Your task to perform on an android device: Search for "lg ultragear" on costco, select the first entry, and add it to the cart. Image 0: 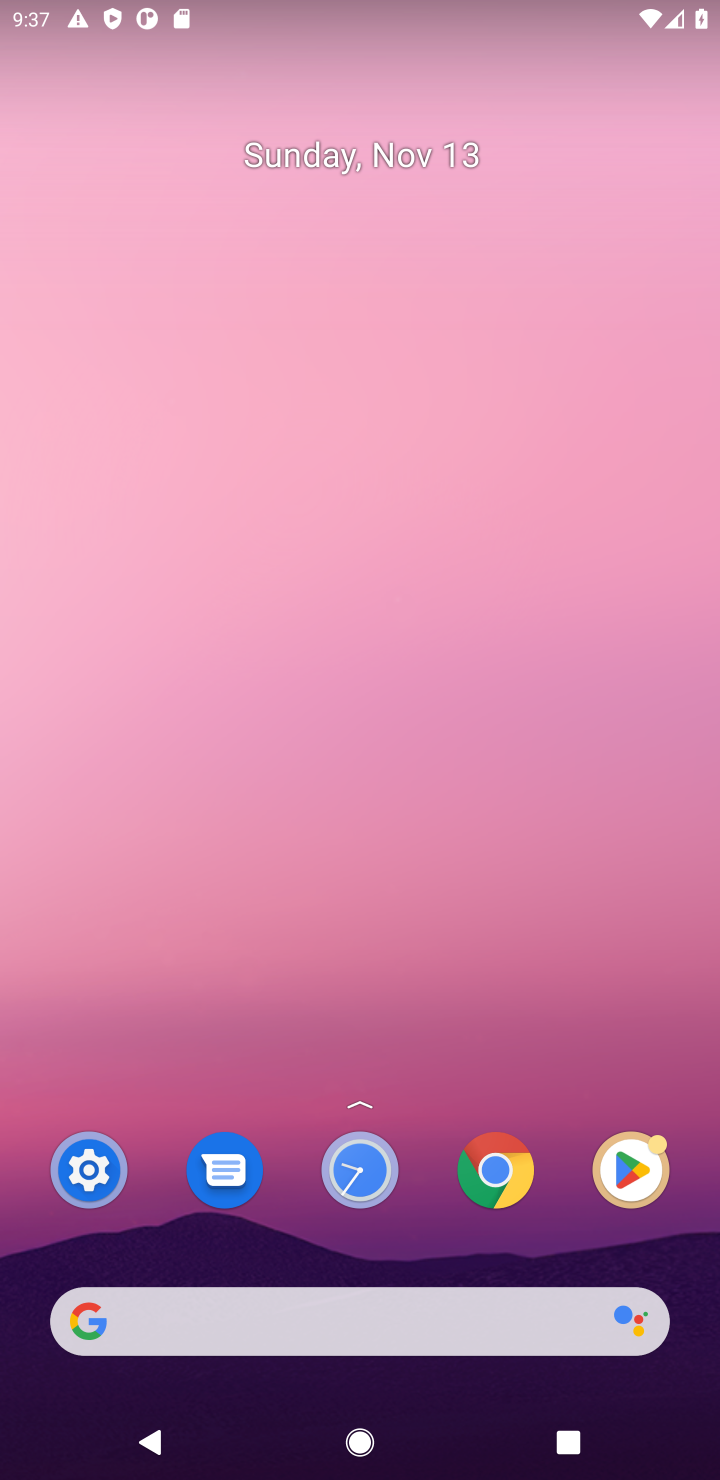
Step 0: click (360, 1313)
Your task to perform on an android device: Search for "lg ultragear" on costco, select the first entry, and add it to the cart. Image 1: 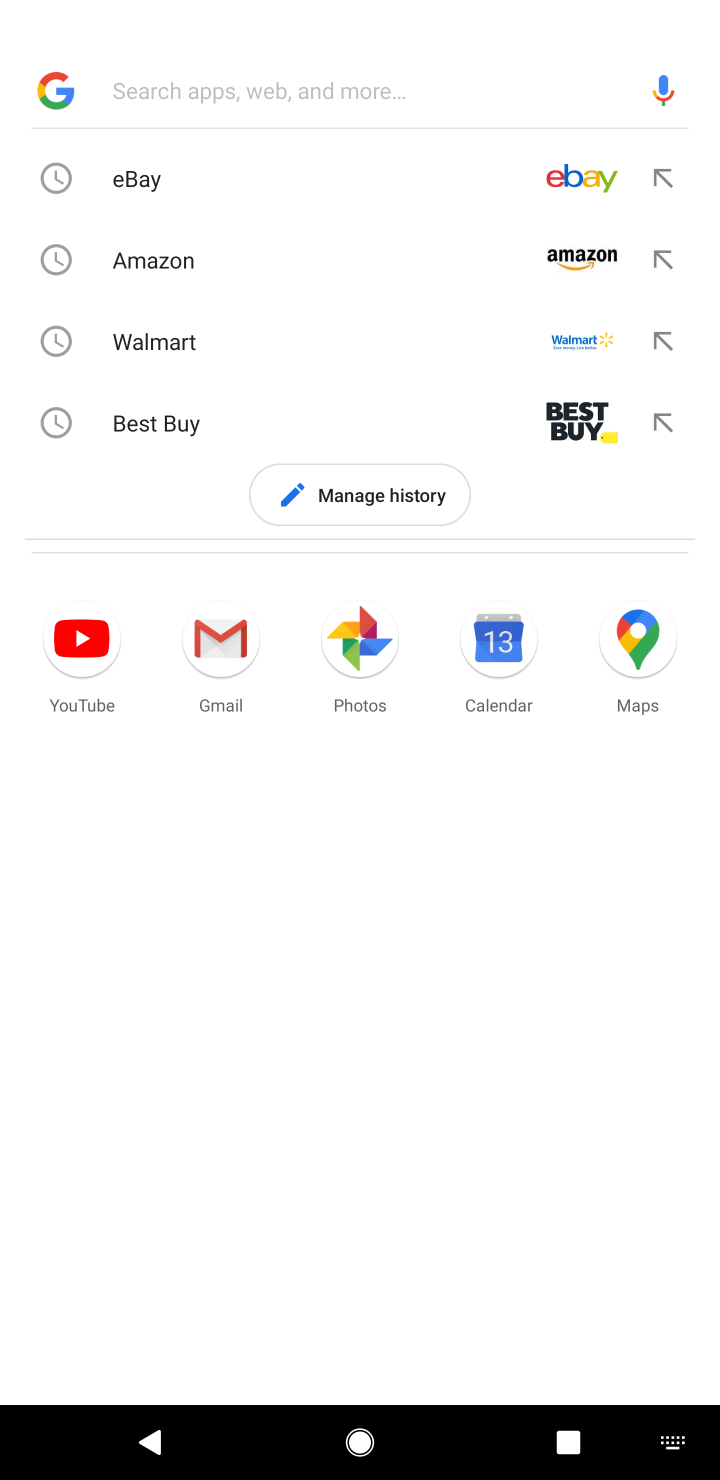
Step 1: type "costco"
Your task to perform on an android device: Search for "lg ultragear" on costco, select the first entry, and add it to the cart. Image 2: 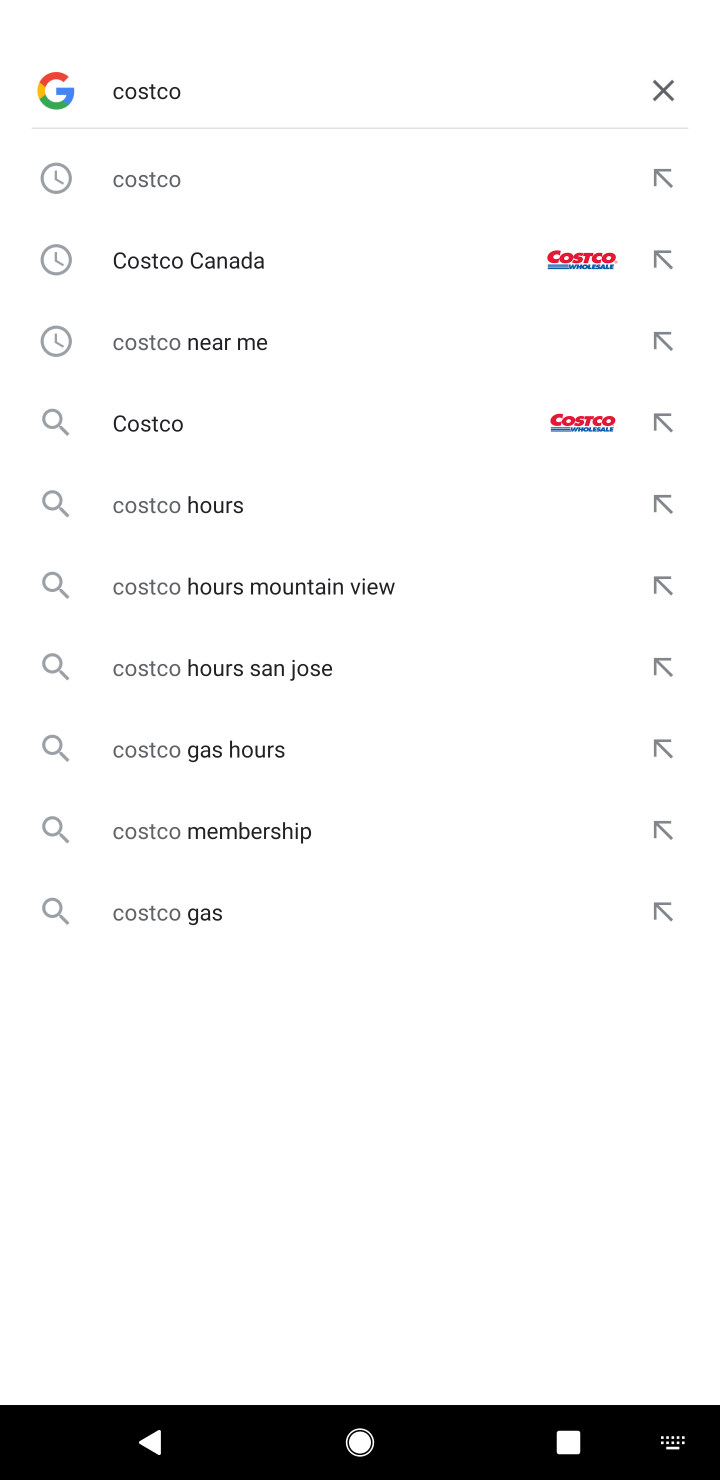
Step 2: click (330, 256)
Your task to perform on an android device: Search for "lg ultragear" on costco, select the first entry, and add it to the cart. Image 3: 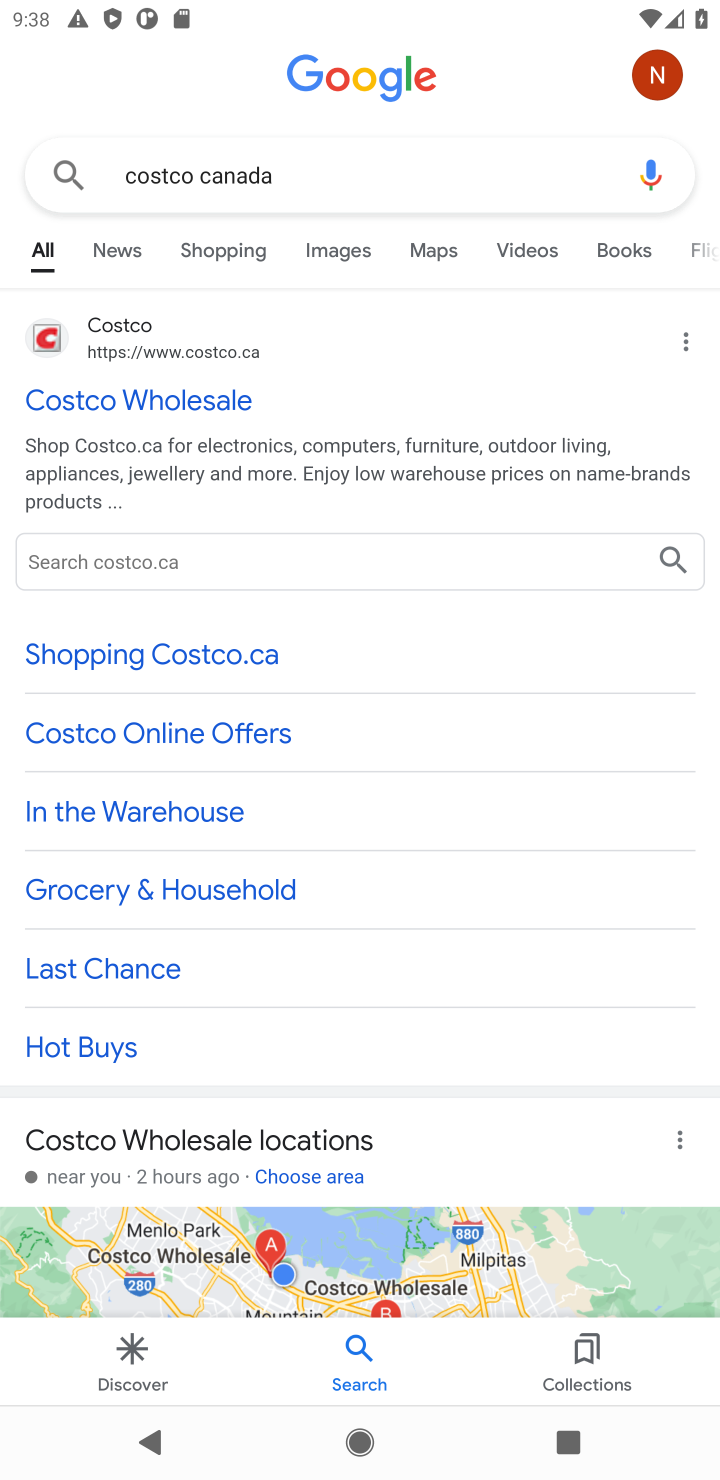
Step 3: click (133, 411)
Your task to perform on an android device: Search for "lg ultragear" on costco, select the first entry, and add it to the cart. Image 4: 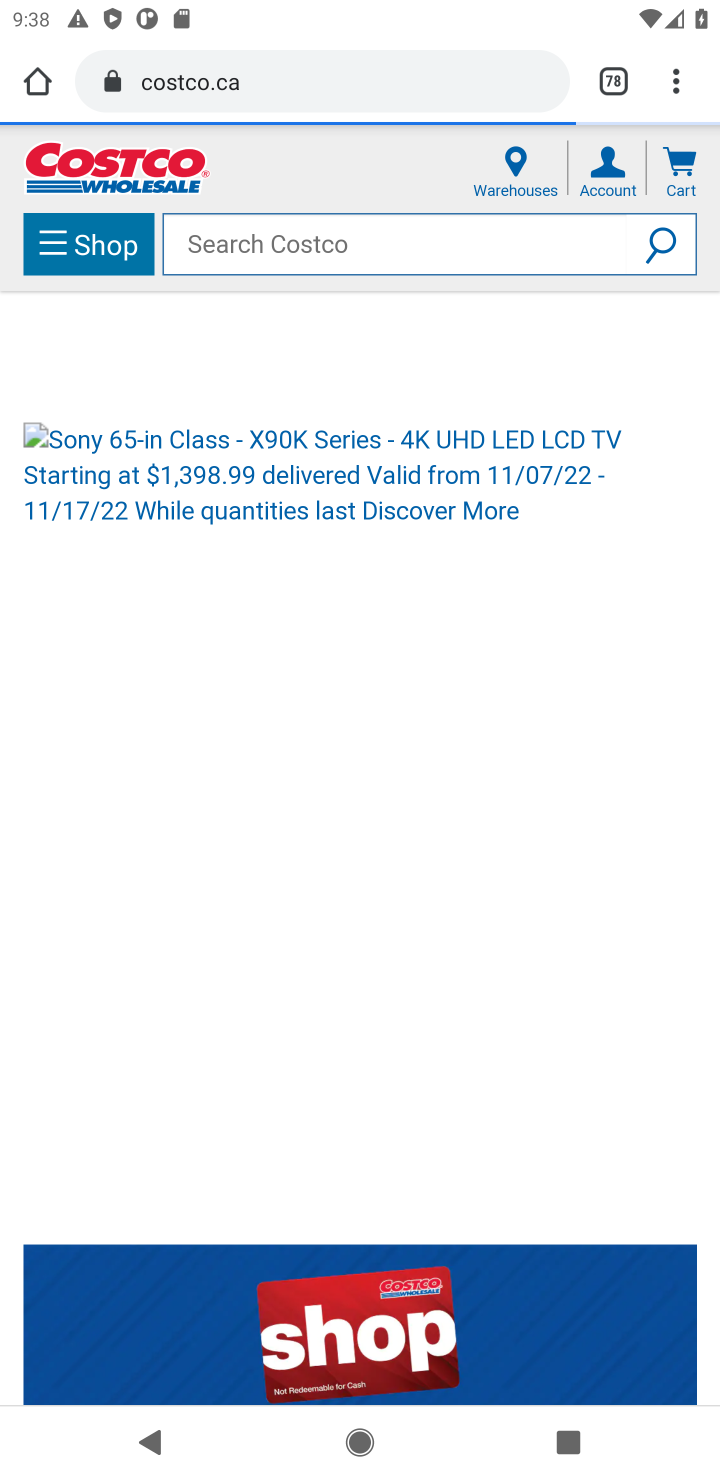
Step 4: task complete